Your task to perform on an android device: open app "Firefox Browser" Image 0: 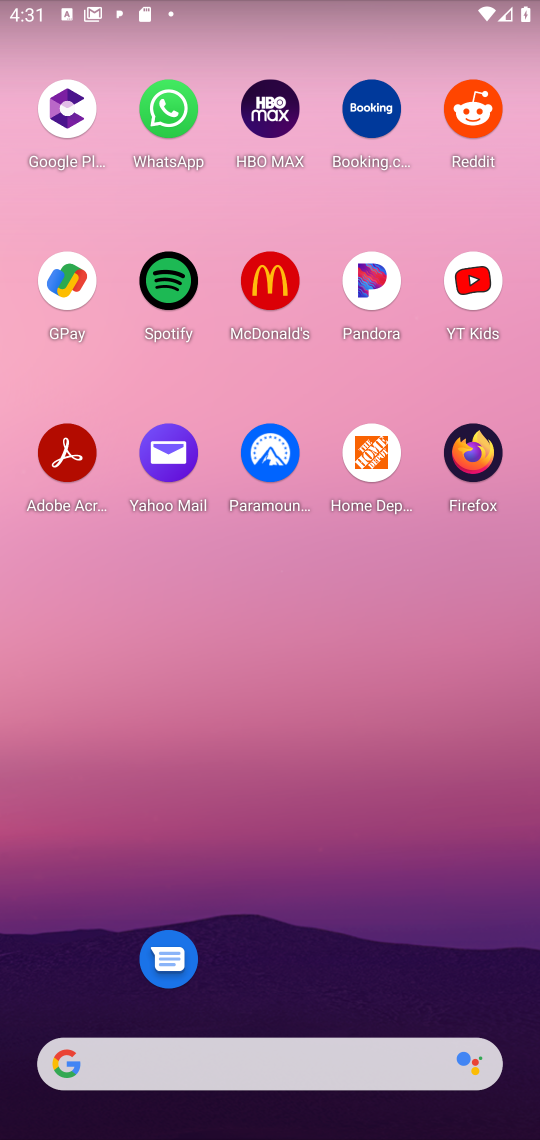
Step 0: drag from (357, 862) to (406, 63)
Your task to perform on an android device: open app "Firefox Browser" Image 1: 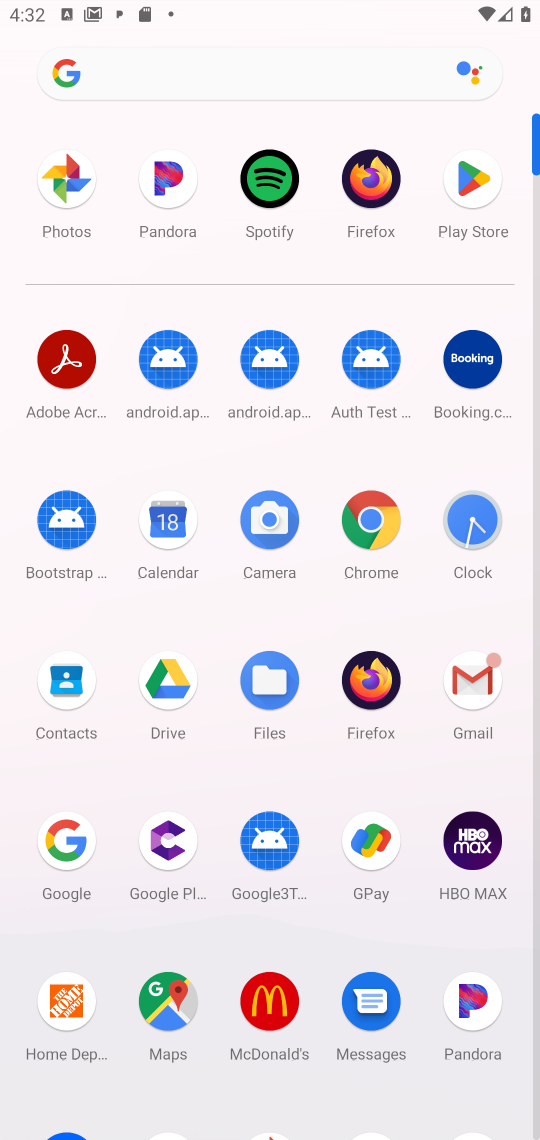
Step 1: click (382, 705)
Your task to perform on an android device: open app "Firefox Browser" Image 2: 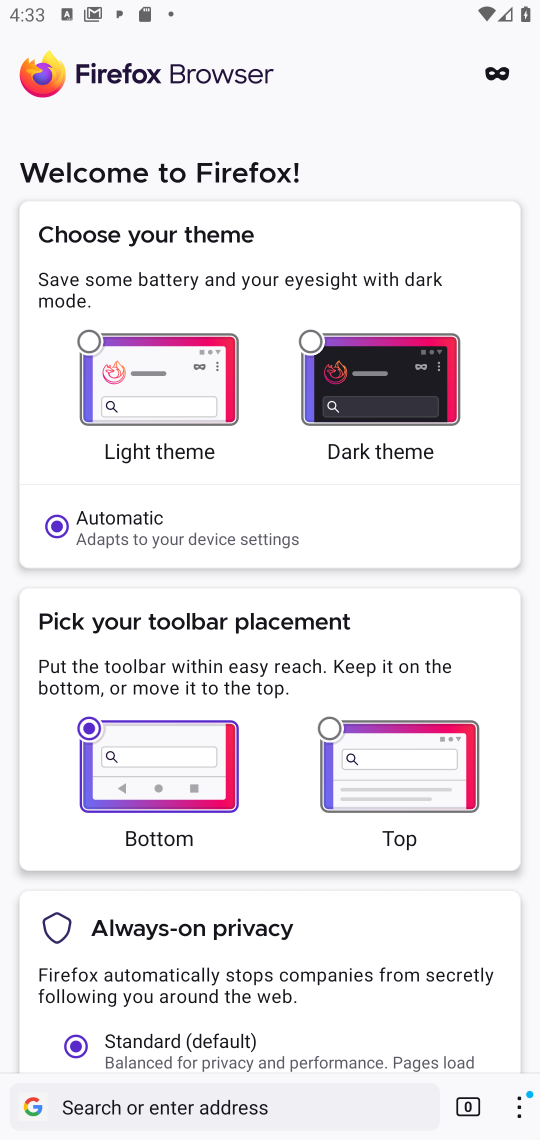
Step 2: task complete